Your task to perform on an android device: change notification settings in the gmail app Image 0: 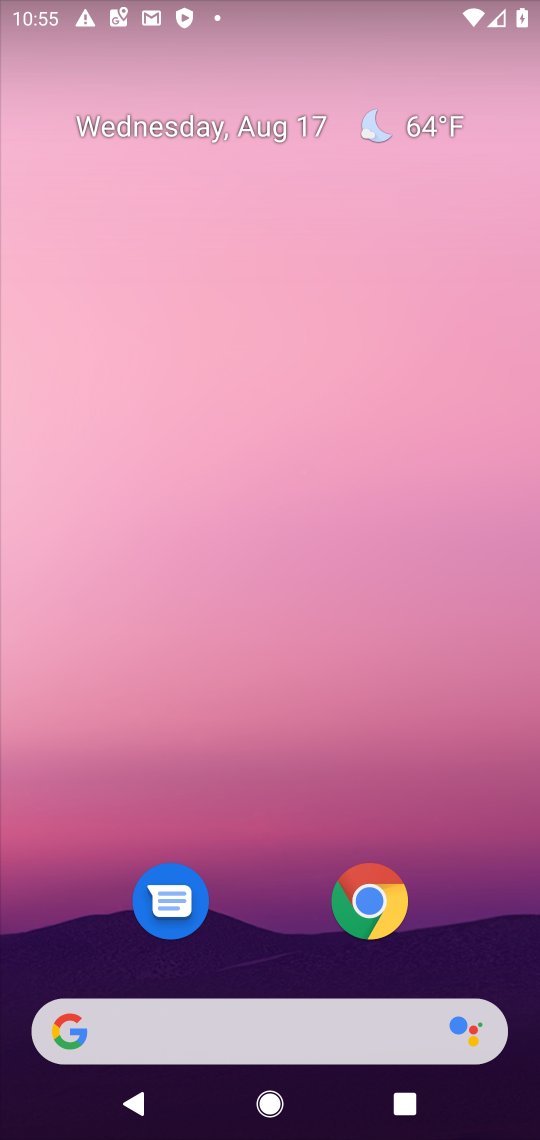
Step 0: press home button
Your task to perform on an android device: change notification settings in the gmail app Image 1: 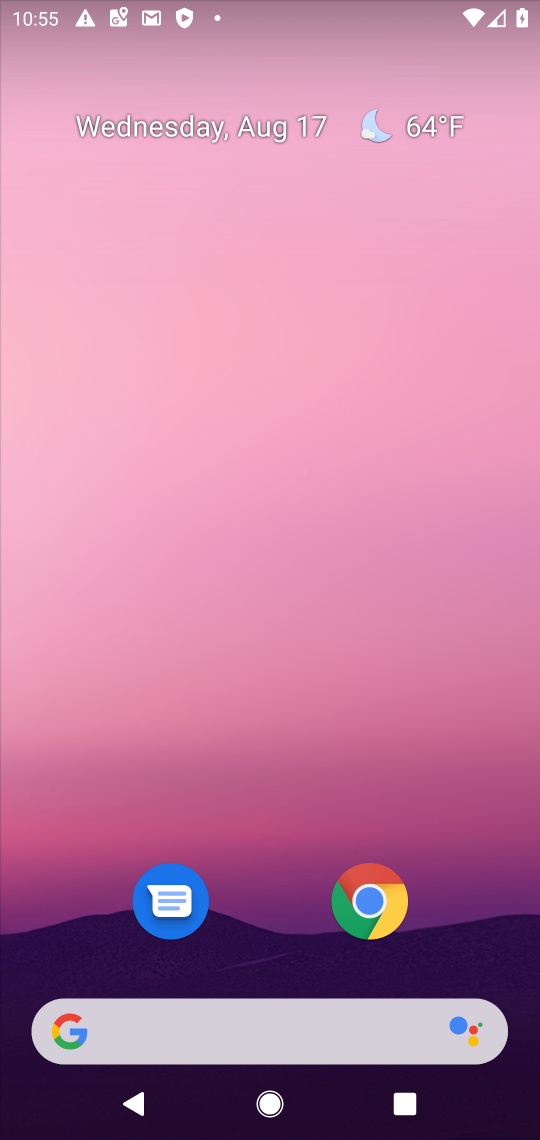
Step 1: drag from (244, 954) to (246, 0)
Your task to perform on an android device: change notification settings in the gmail app Image 2: 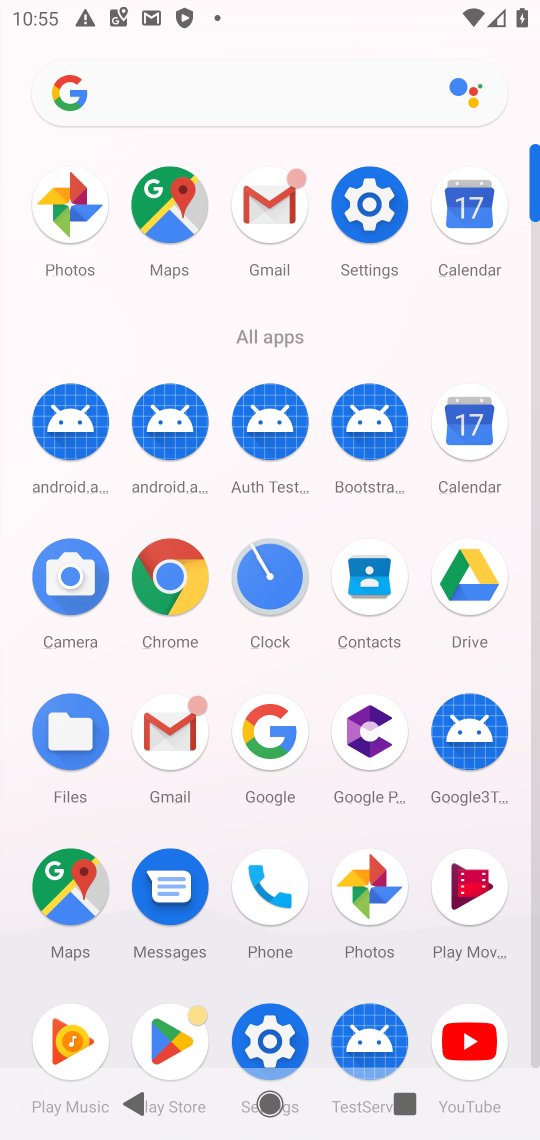
Step 2: click (261, 235)
Your task to perform on an android device: change notification settings in the gmail app Image 3: 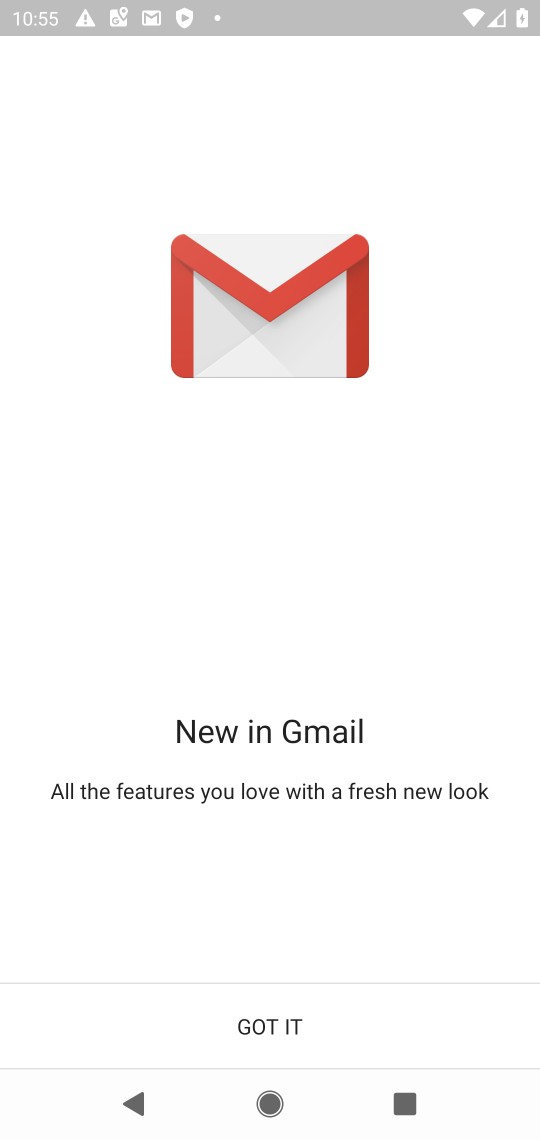
Step 3: click (263, 1012)
Your task to perform on an android device: change notification settings in the gmail app Image 4: 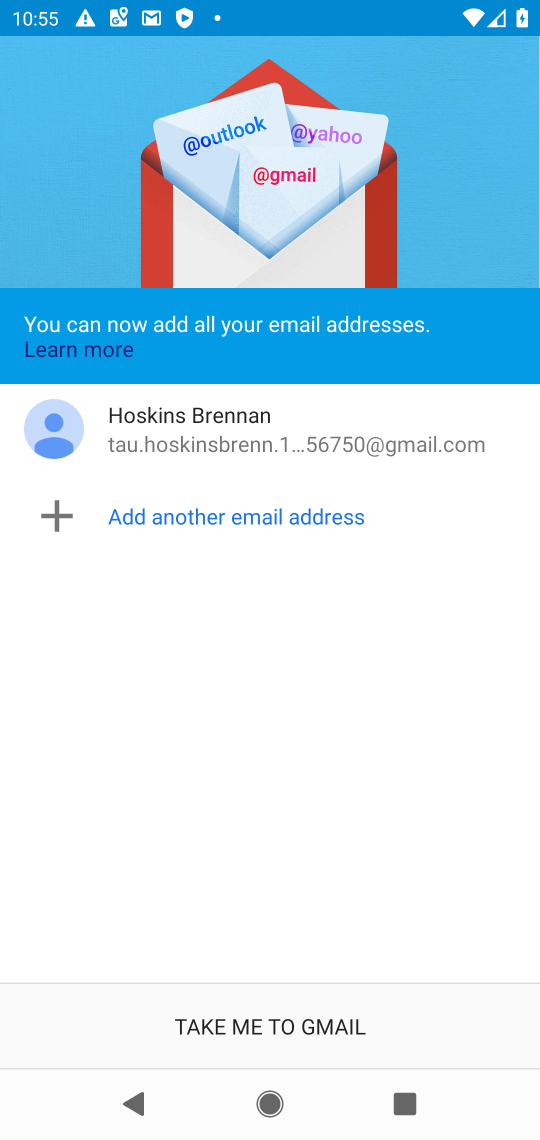
Step 4: click (252, 1027)
Your task to perform on an android device: change notification settings in the gmail app Image 5: 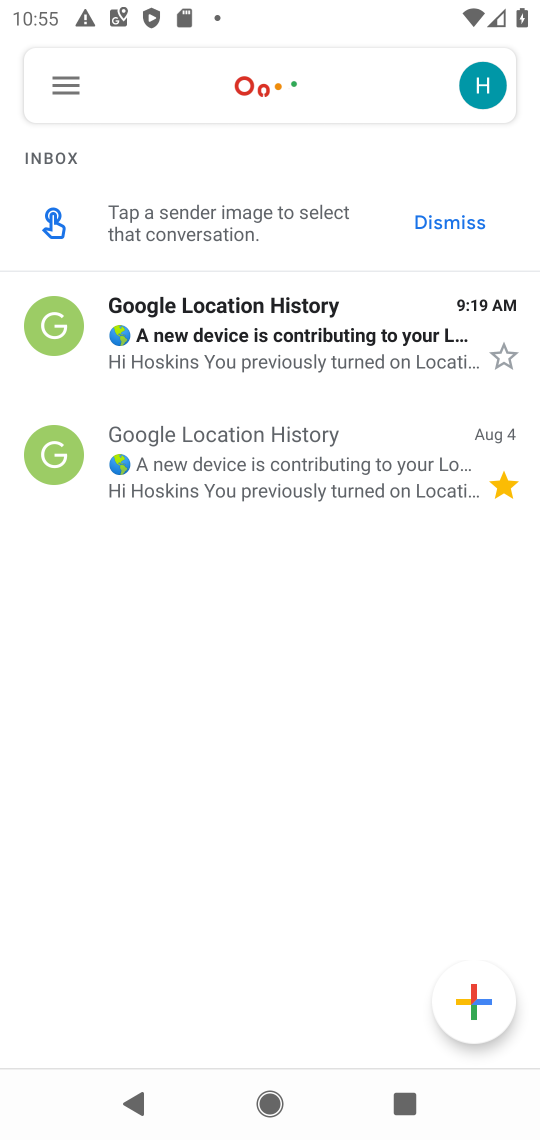
Step 5: click (73, 85)
Your task to perform on an android device: change notification settings in the gmail app Image 6: 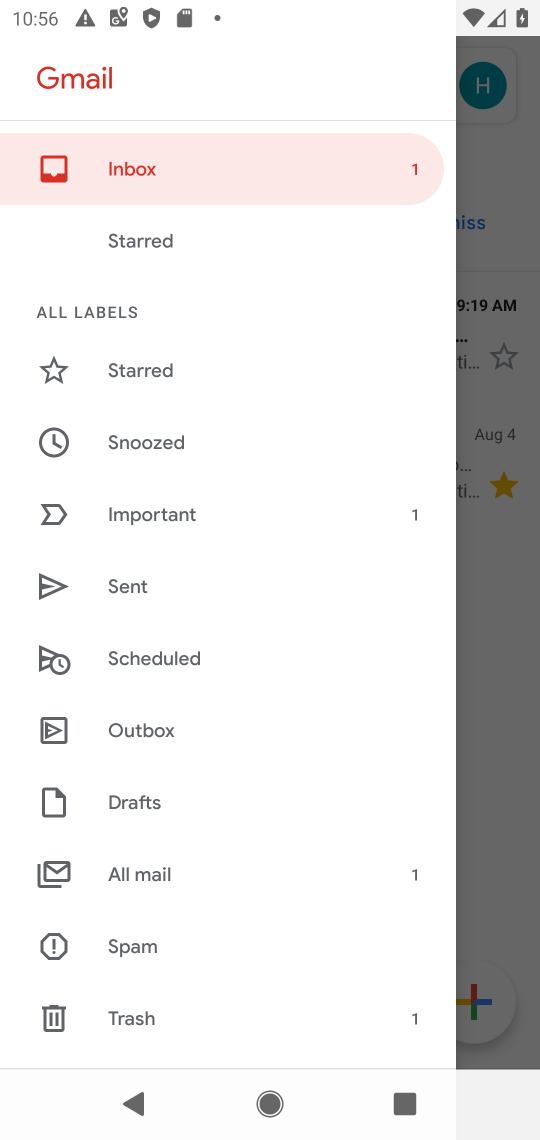
Step 6: drag from (222, 312) to (170, 11)
Your task to perform on an android device: change notification settings in the gmail app Image 7: 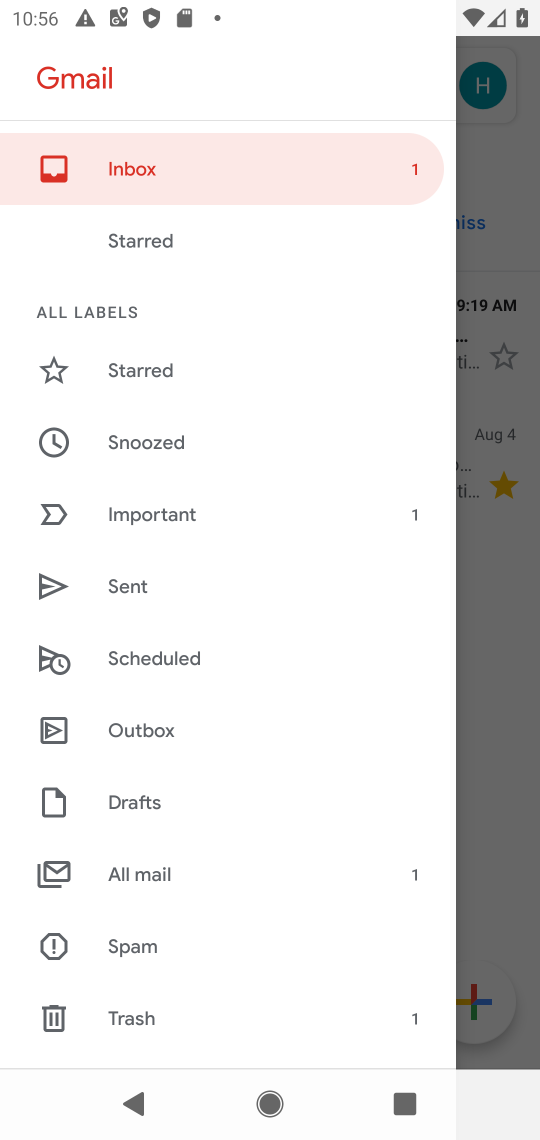
Step 7: drag from (325, 1018) to (299, 533)
Your task to perform on an android device: change notification settings in the gmail app Image 8: 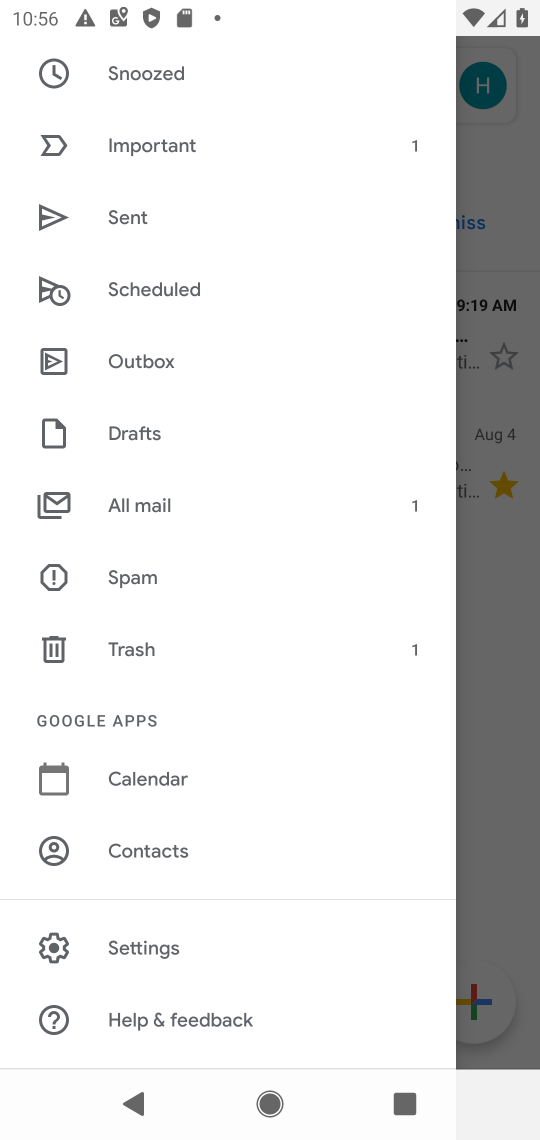
Step 8: click (140, 944)
Your task to perform on an android device: change notification settings in the gmail app Image 9: 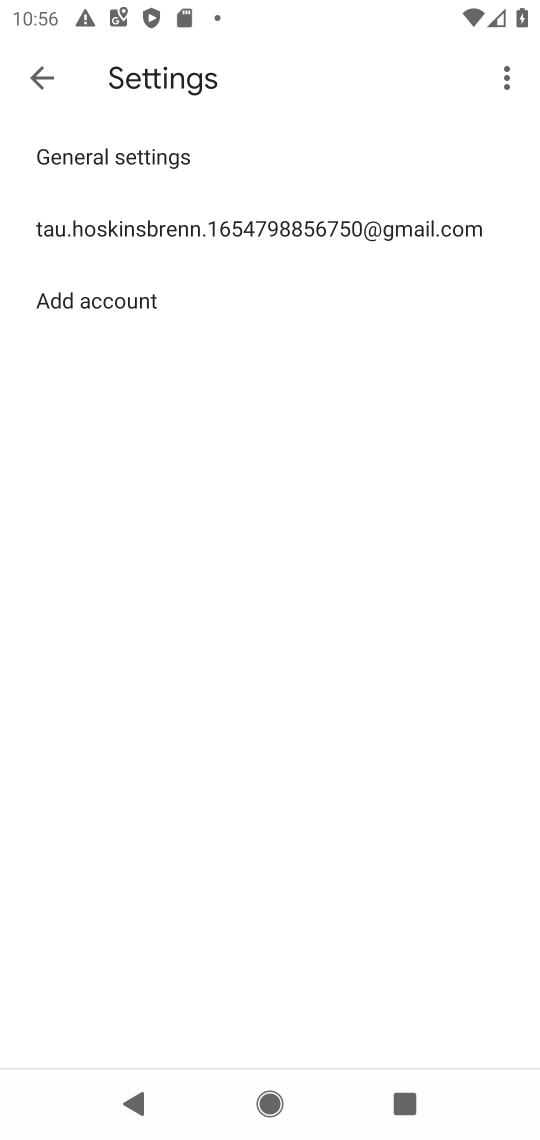
Step 9: click (121, 239)
Your task to perform on an android device: change notification settings in the gmail app Image 10: 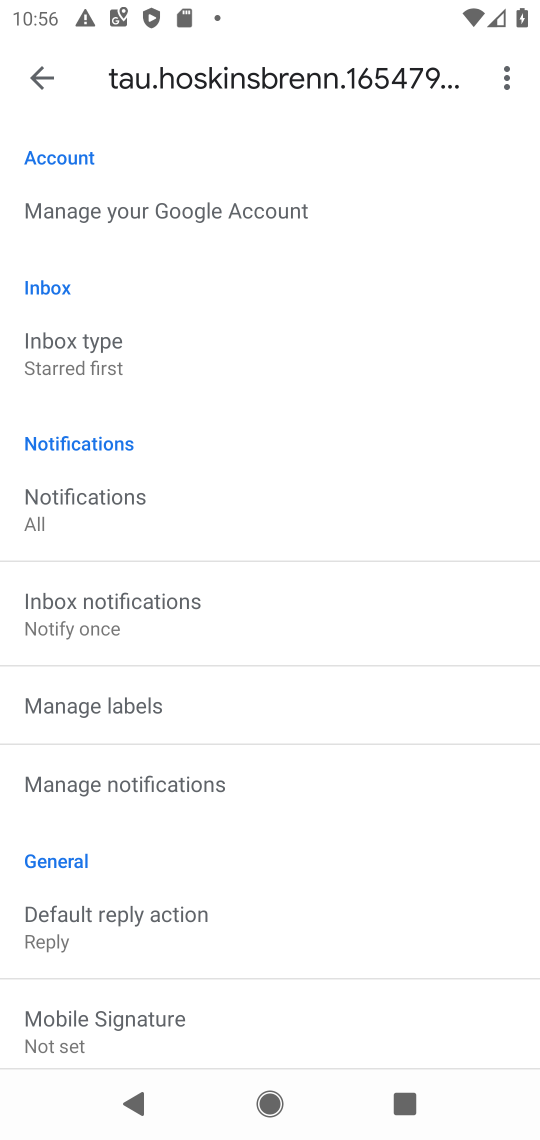
Step 10: click (112, 791)
Your task to perform on an android device: change notification settings in the gmail app Image 11: 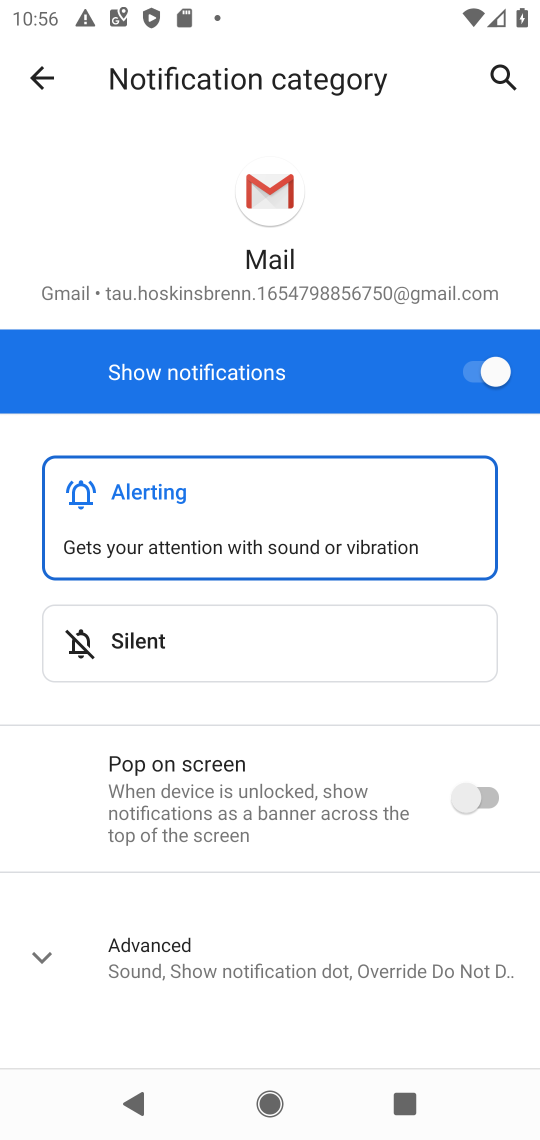
Step 11: click (473, 372)
Your task to perform on an android device: change notification settings in the gmail app Image 12: 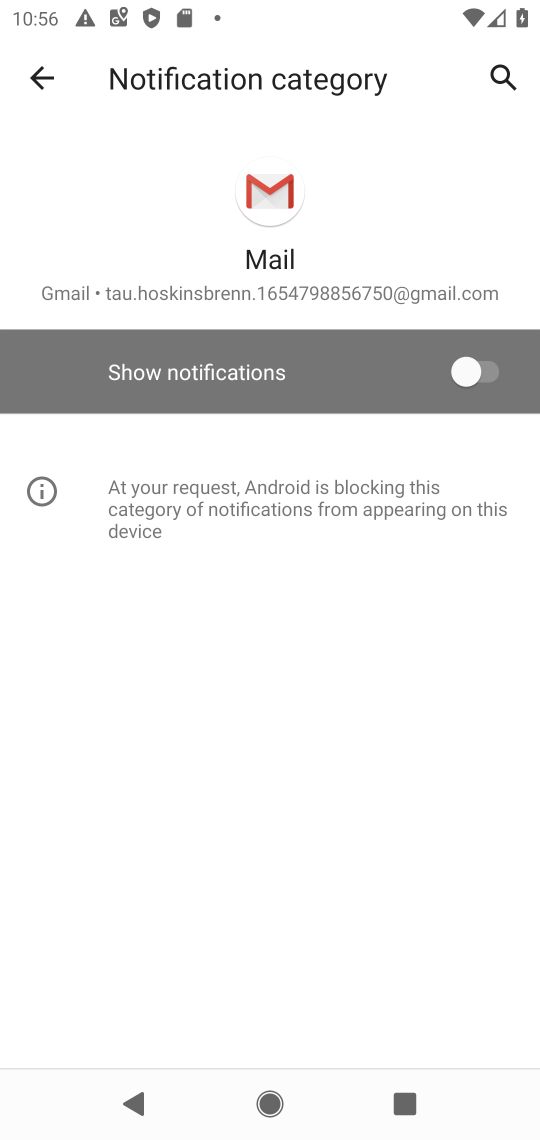
Step 12: task complete